Your task to perform on an android device: see tabs open on other devices in the chrome app Image 0: 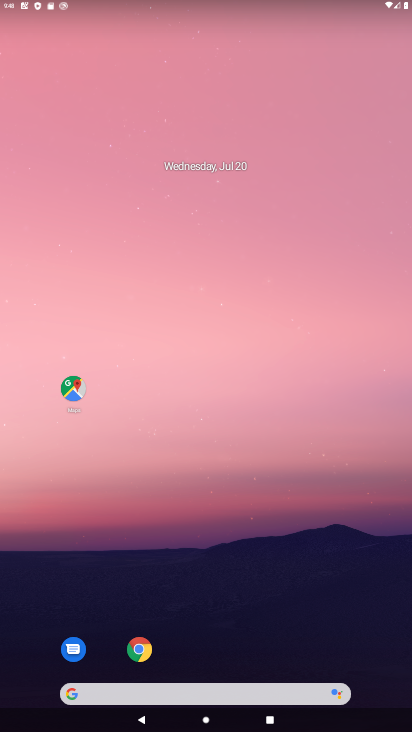
Step 0: drag from (261, 658) to (275, 212)
Your task to perform on an android device: see tabs open on other devices in the chrome app Image 1: 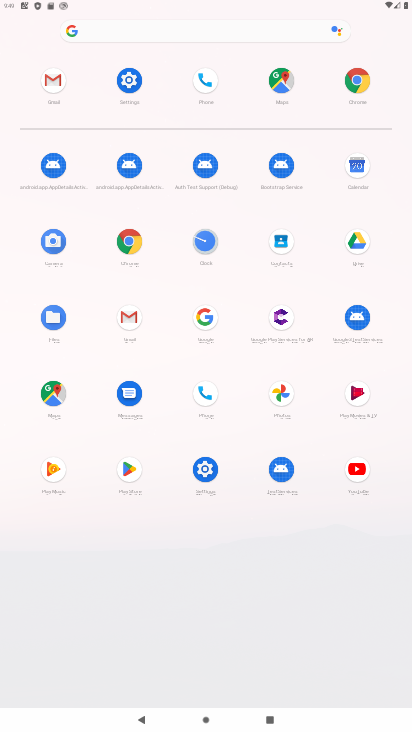
Step 1: click (338, 84)
Your task to perform on an android device: see tabs open on other devices in the chrome app Image 2: 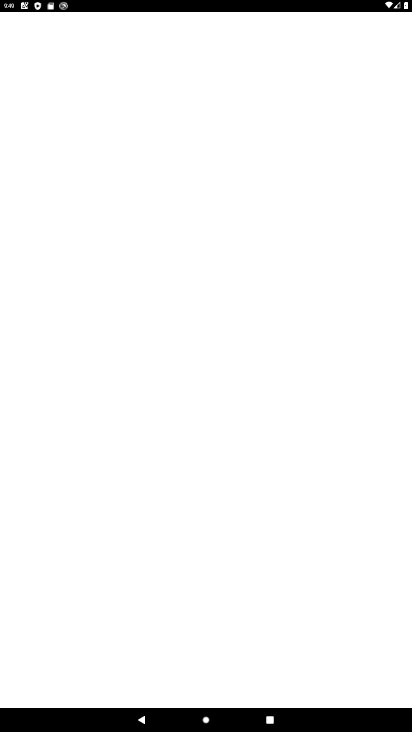
Step 2: task complete